Your task to perform on an android device: Go to settings Image 0: 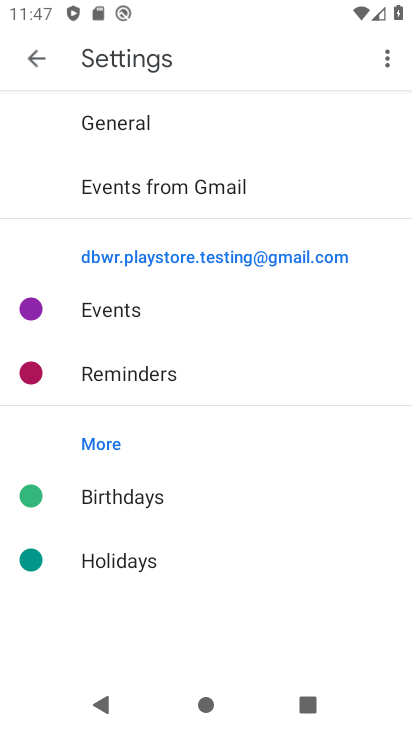
Step 0: press home button
Your task to perform on an android device: Go to settings Image 1: 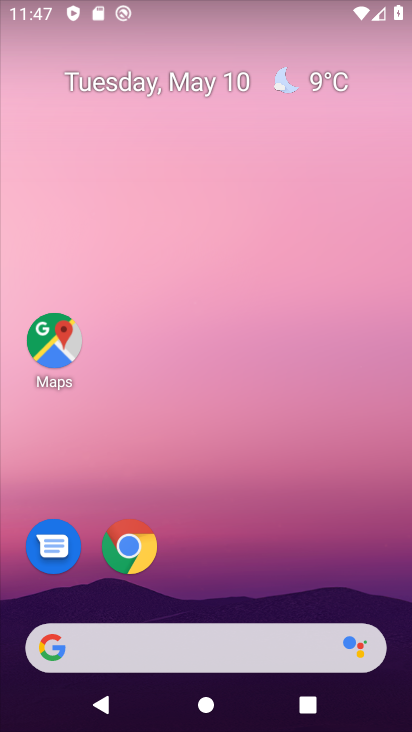
Step 1: drag from (212, 552) to (248, 95)
Your task to perform on an android device: Go to settings Image 2: 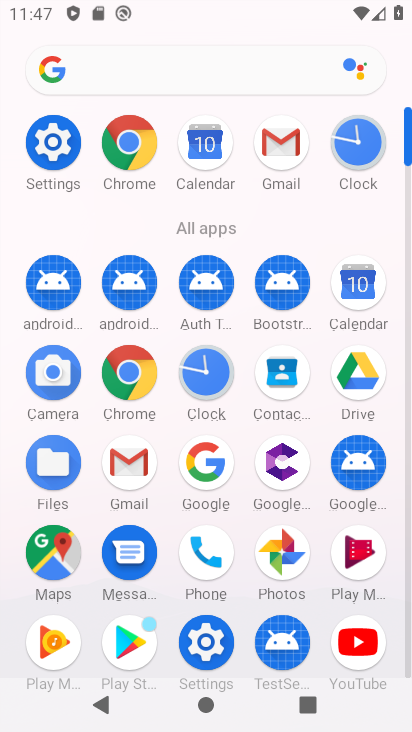
Step 2: click (50, 152)
Your task to perform on an android device: Go to settings Image 3: 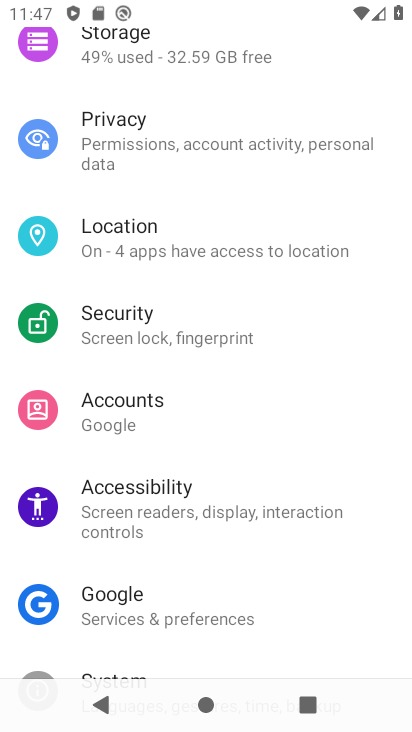
Step 3: task complete